Your task to perform on an android device: Go to internet settings Image 0: 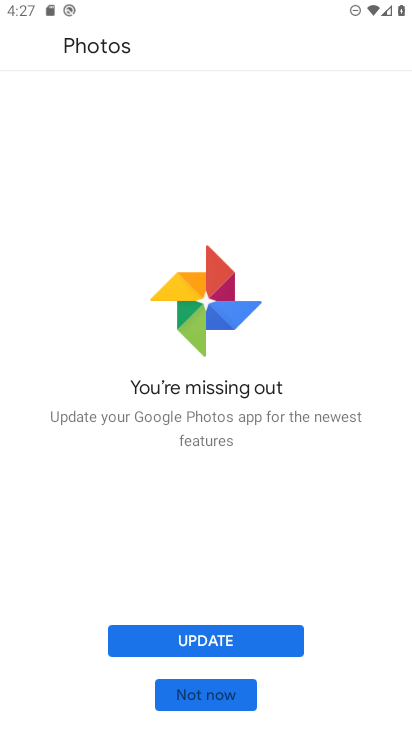
Step 0: press home button
Your task to perform on an android device: Go to internet settings Image 1: 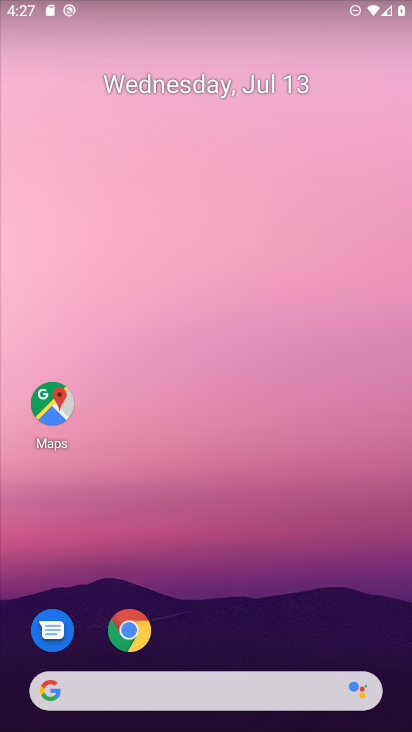
Step 1: drag from (196, 566) to (211, 184)
Your task to perform on an android device: Go to internet settings Image 2: 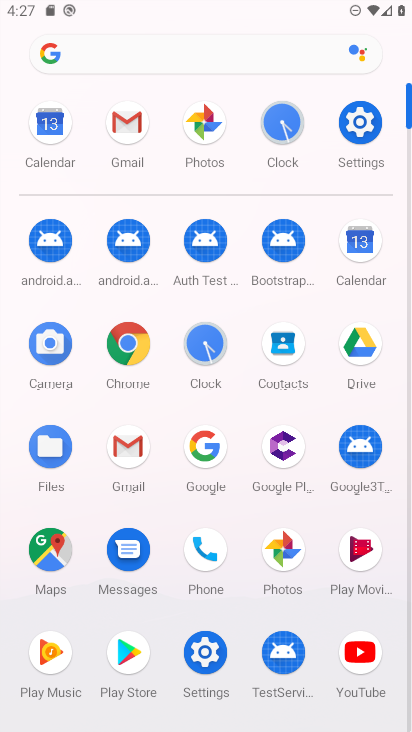
Step 2: click (357, 140)
Your task to perform on an android device: Go to internet settings Image 3: 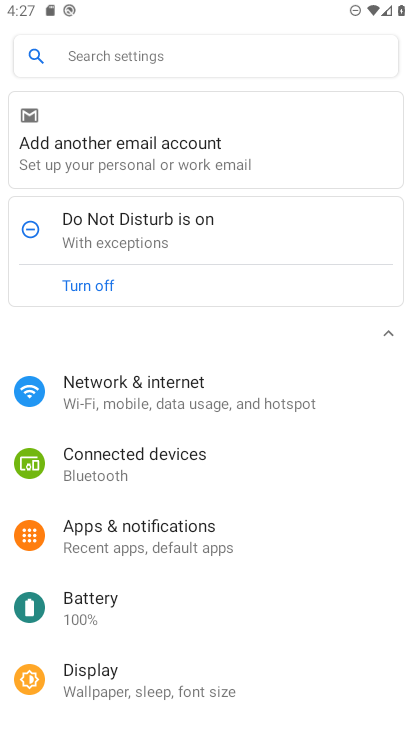
Step 3: click (137, 394)
Your task to perform on an android device: Go to internet settings Image 4: 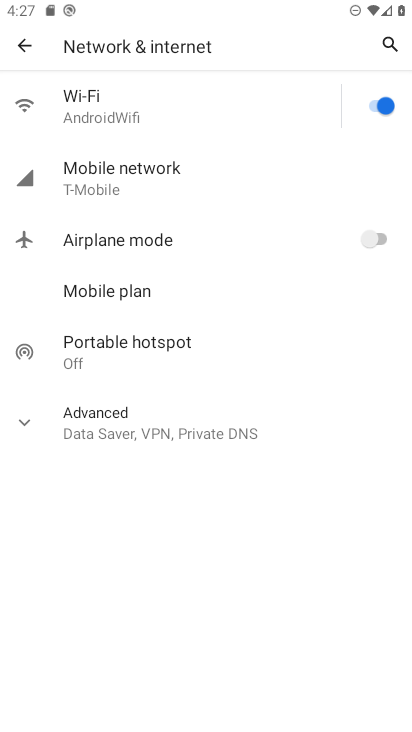
Step 4: task complete